Your task to perform on an android device: turn off location history Image 0: 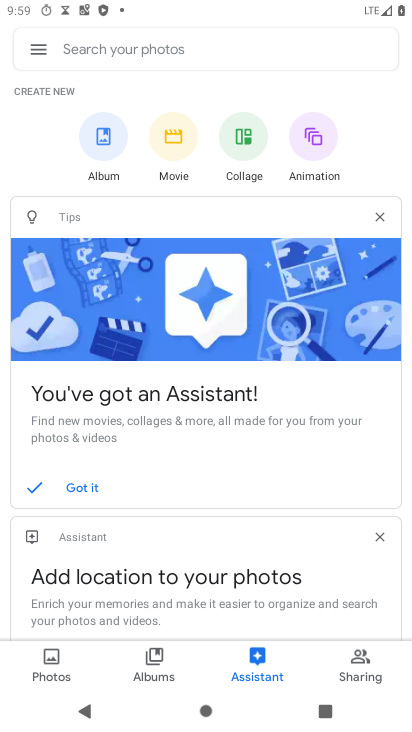
Step 0: press back button
Your task to perform on an android device: turn off location history Image 1: 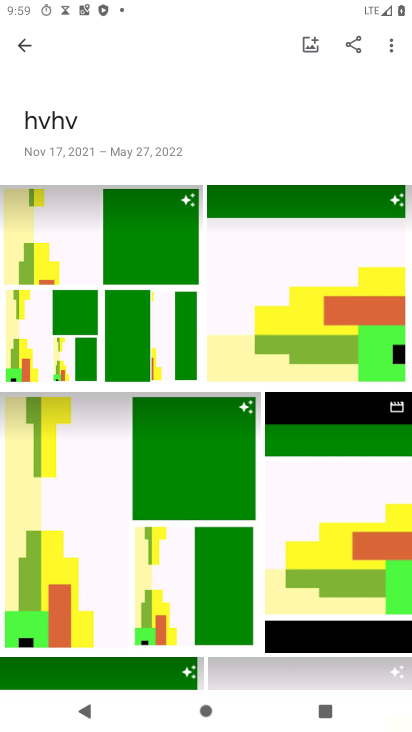
Step 1: press back button
Your task to perform on an android device: turn off location history Image 2: 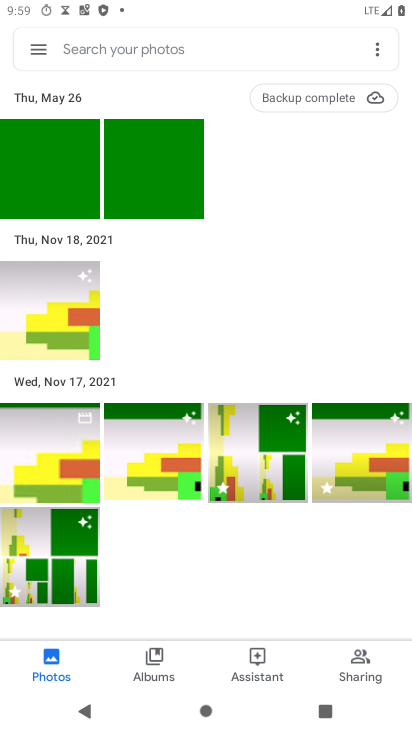
Step 2: press back button
Your task to perform on an android device: turn off location history Image 3: 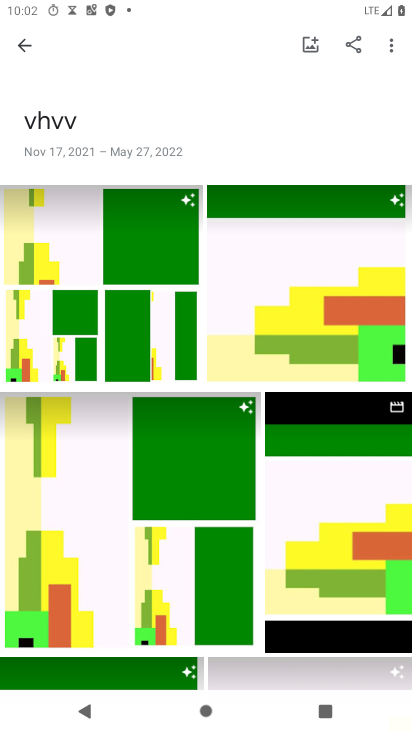
Step 3: press back button
Your task to perform on an android device: turn off location history Image 4: 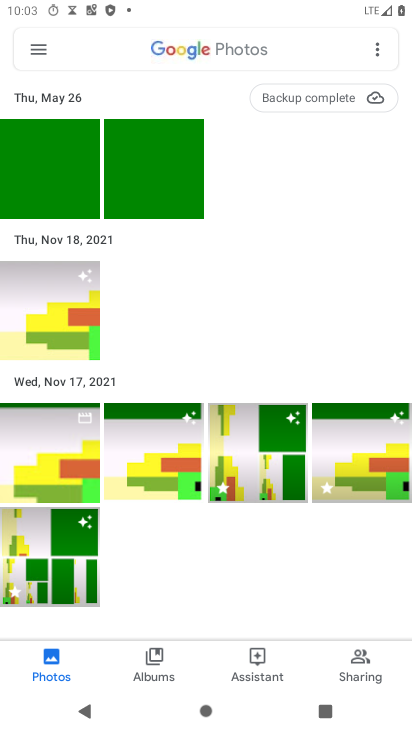
Step 4: press home button
Your task to perform on an android device: turn off location history Image 5: 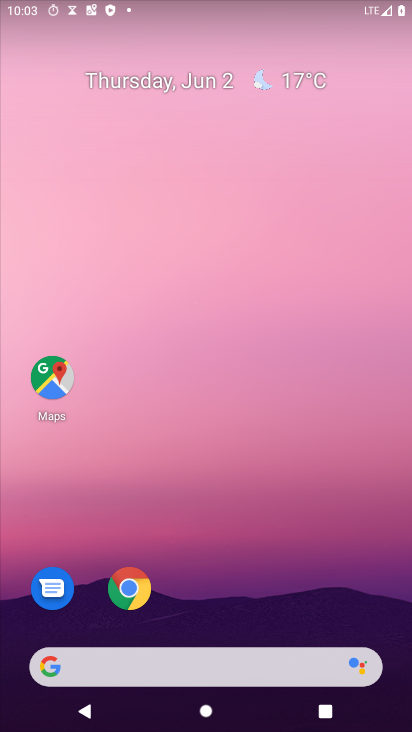
Step 5: drag from (199, 558) to (259, 111)
Your task to perform on an android device: turn off location history Image 6: 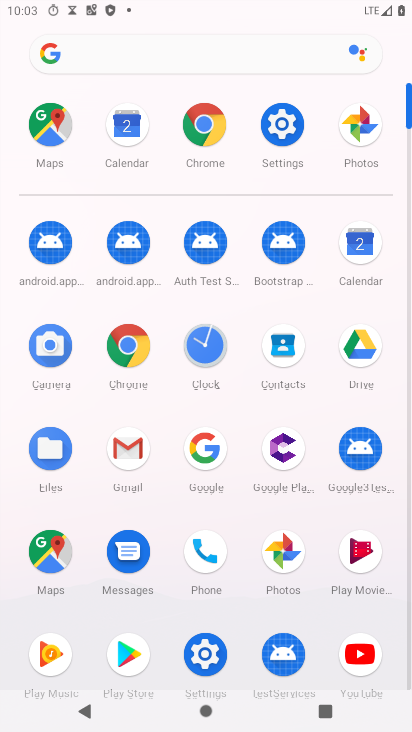
Step 6: click (276, 124)
Your task to perform on an android device: turn off location history Image 7: 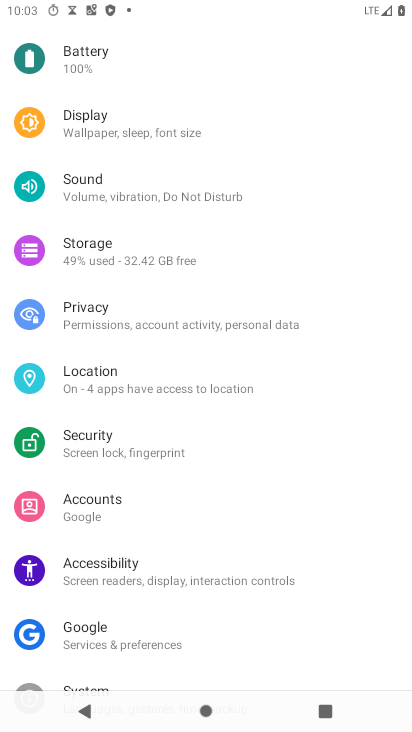
Step 7: click (101, 377)
Your task to perform on an android device: turn off location history Image 8: 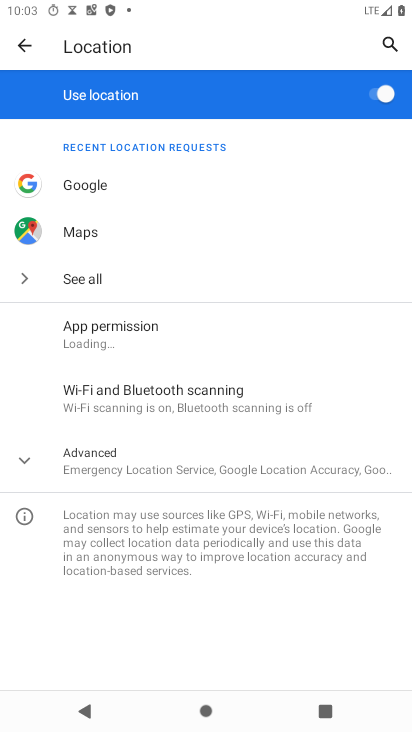
Step 8: click (134, 468)
Your task to perform on an android device: turn off location history Image 9: 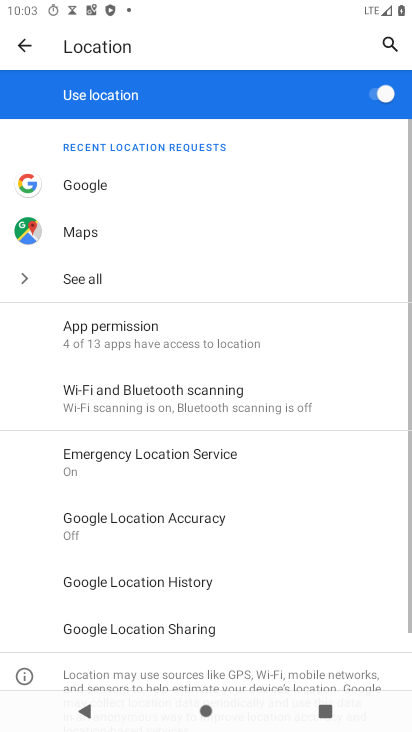
Step 9: click (152, 585)
Your task to perform on an android device: turn off location history Image 10: 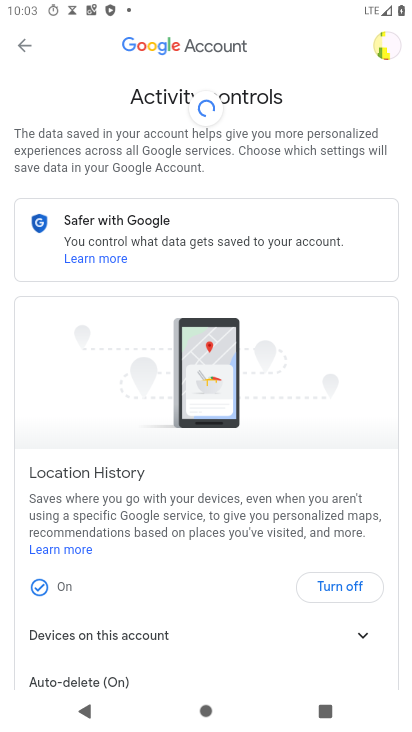
Step 10: click (339, 580)
Your task to perform on an android device: turn off location history Image 11: 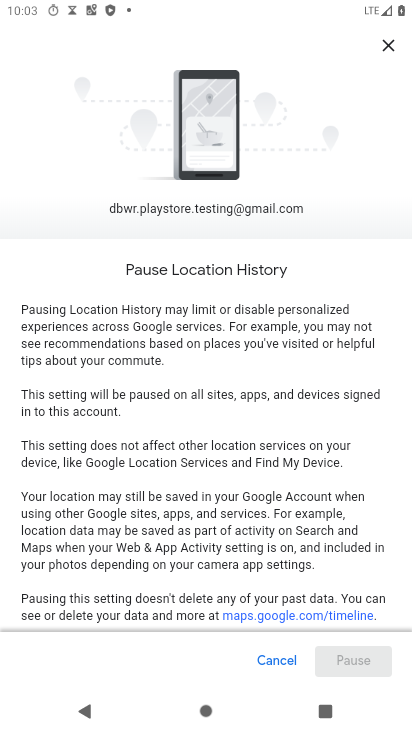
Step 11: drag from (283, 565) to (299, 111)
Your task to perform on an android device: turn off location history Image 12: 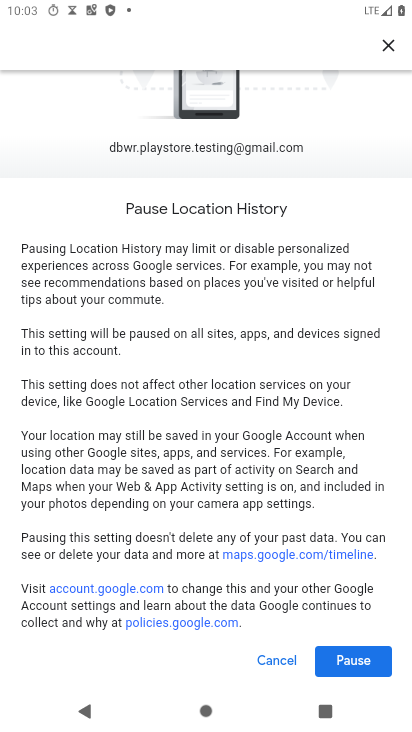
Step 12: click (363, 675)
Your task to perform on an android device: turn off location history Image 13: 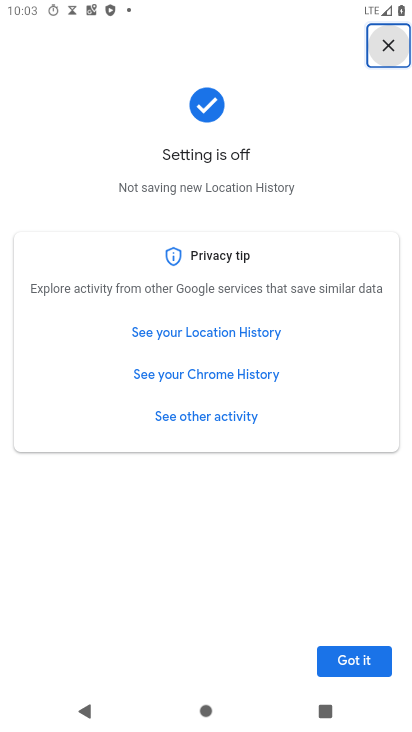
Step 13: task complete